Your task to perform on an android device: turn off smart reply in the gmail app Image 0: 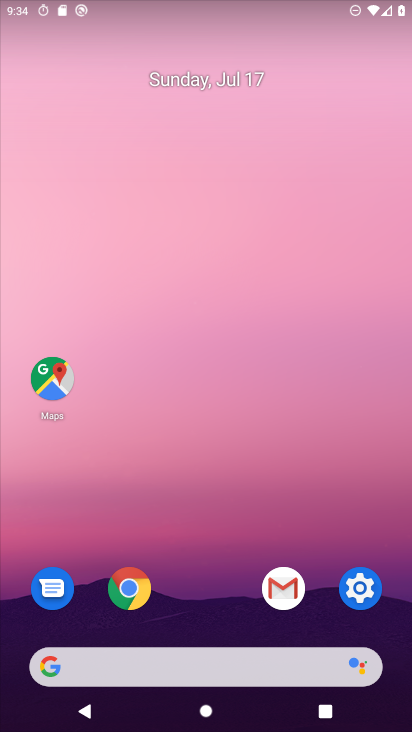
Step 0: click (278, 591)
Your task to perform on an android device: turn off smart reply in the gmail app Image 1: 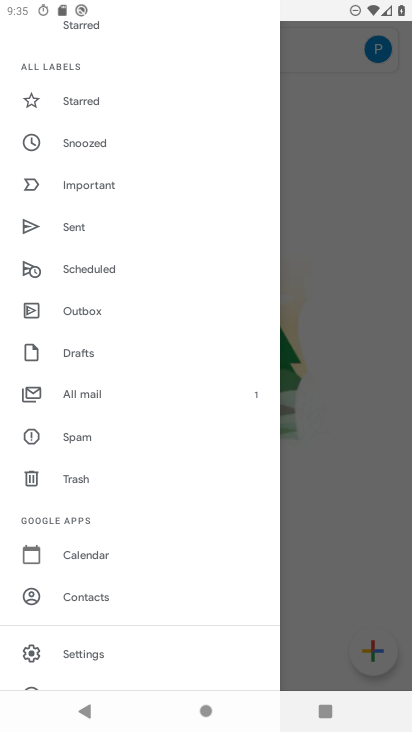
Step 1: click (101, 653)
Your task to perform on an android device: turn off smart reply in the gmail app Image 2: 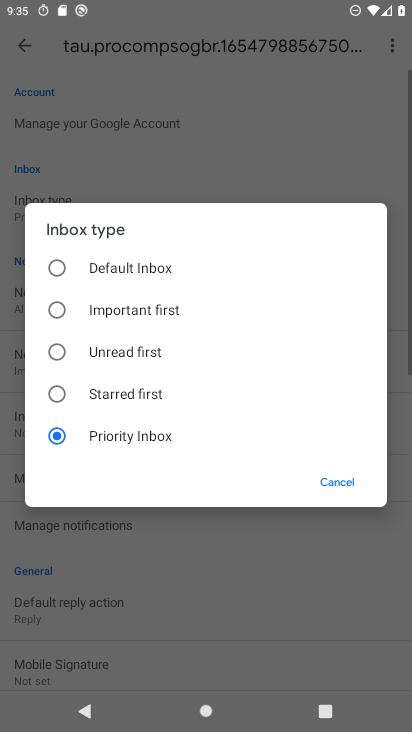
Step 2: click (256, 560)
Your task to perform on an android device: turn off smart reply in the gmail app Image 3: 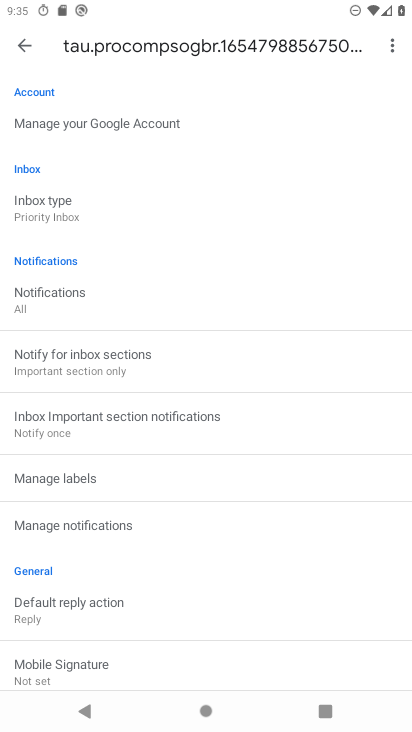
Step 3: drag from (277, 571) to (393, 49)
Your task to perform on an android device: turn off smart reply in the gmail app Image 4: 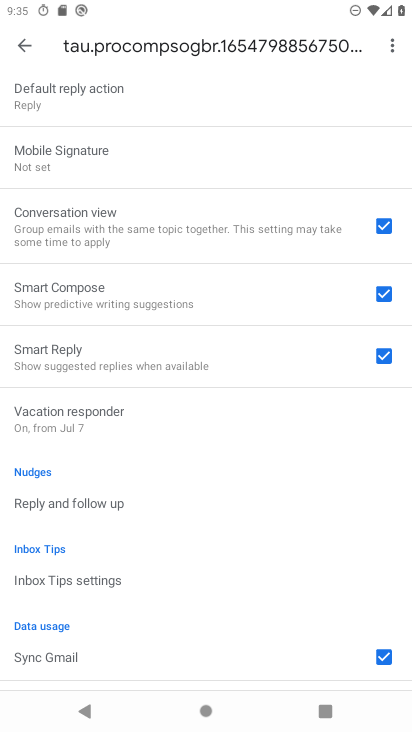
Step 4: click (386, 342)
Your task to perform on an android device: turn off smart reply in the gmail app Image 5: 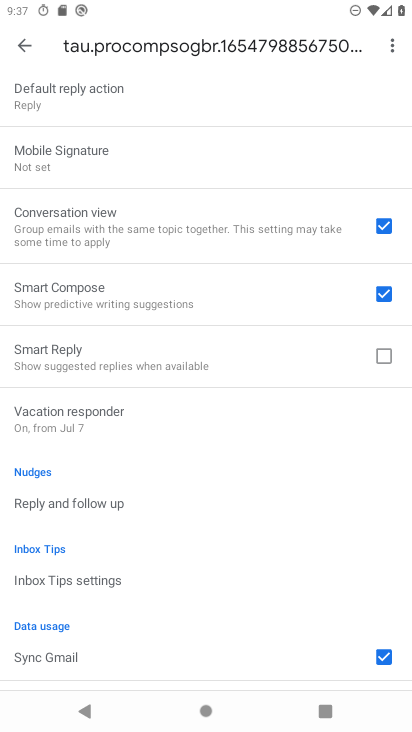
Step 5: task complete